Your task to perform on an android device: open app "Airtel Thanks" (install if not already installed) and go to login screen Image 0: 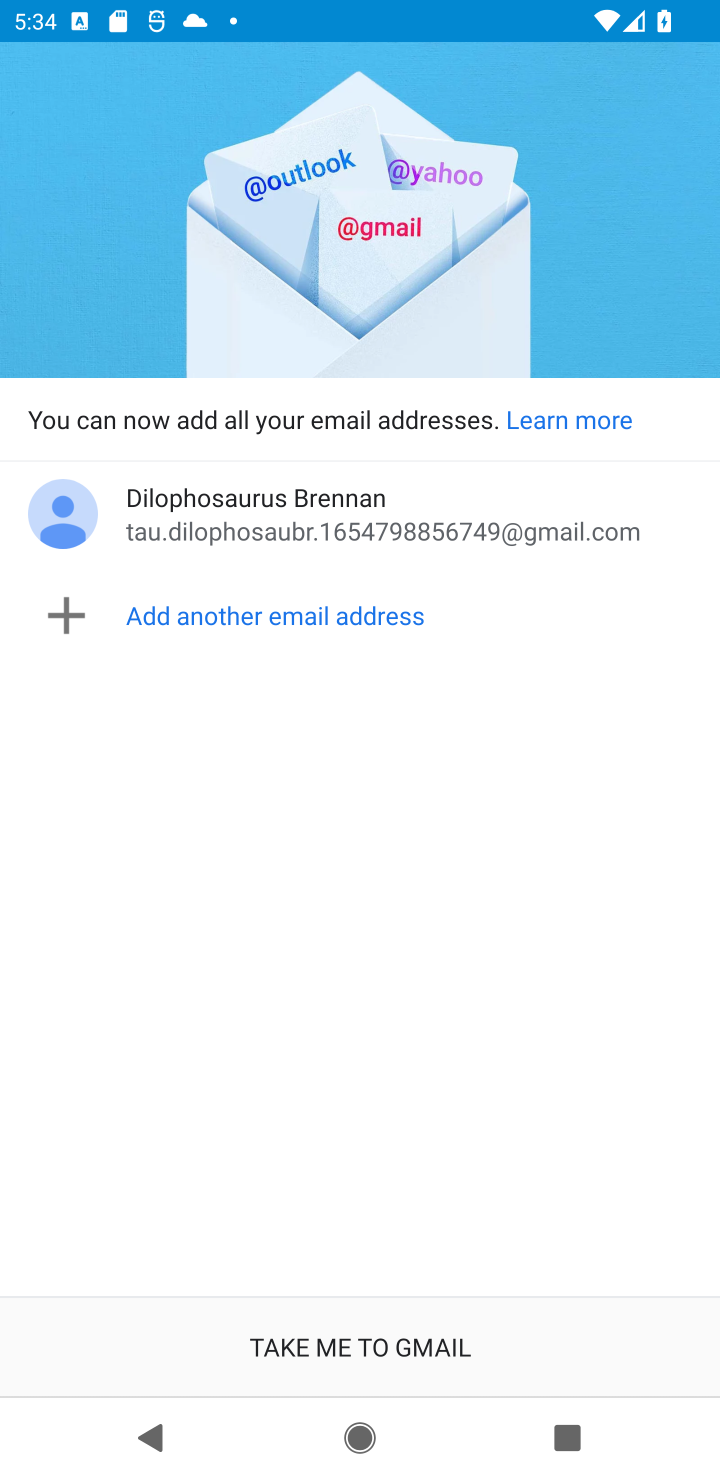
Step 0: press home button
Your task to perform on an android device: open app "Airtel Thanks" (install if not already installed) and go to login screen Image 1: 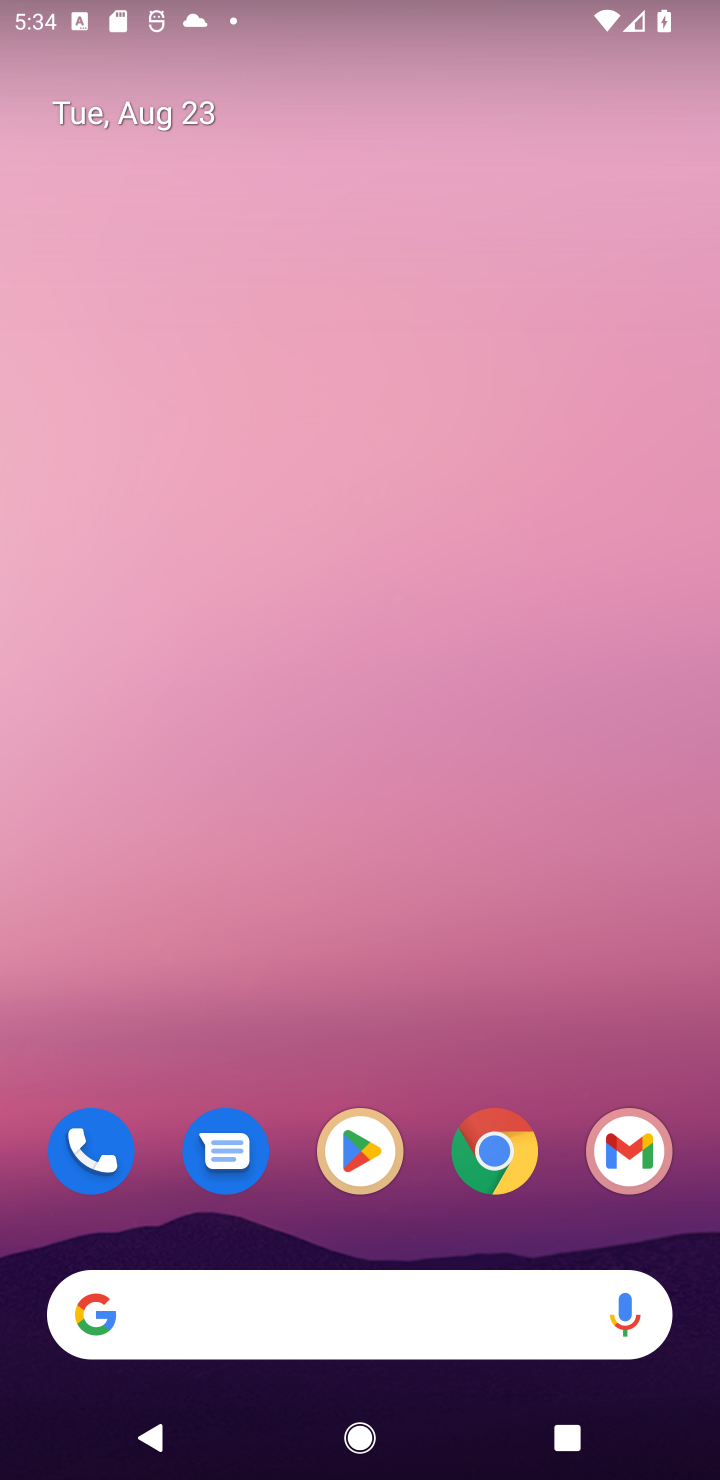
Step 1: click (357, 1155)
Your task to perform on an android device: open app "Airtel Thanks" (install if not already installed) and go to login screen Image 2: 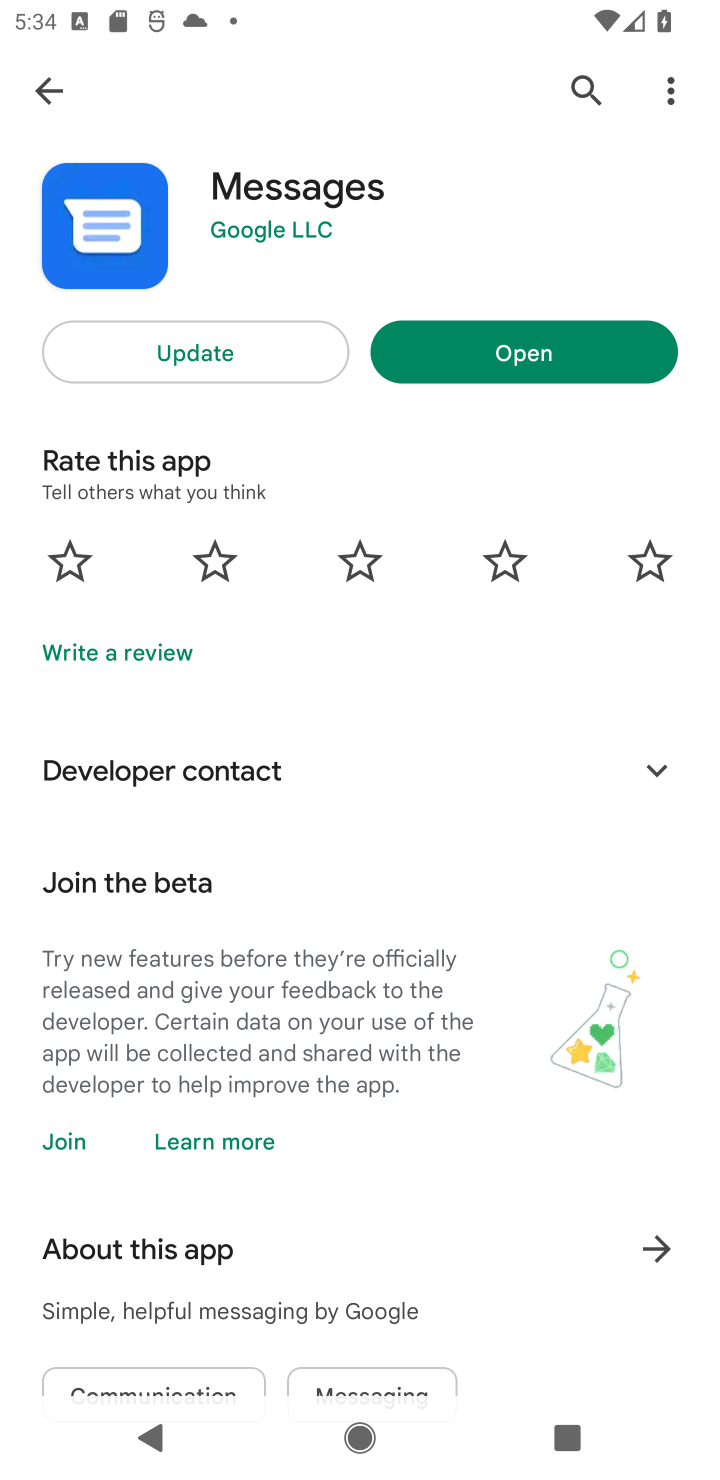
Step 2: click (583, 77)
Your task to perform on an android device: open app "Airtel Thanks" (install if not already installed) and go to login screen Image 3: 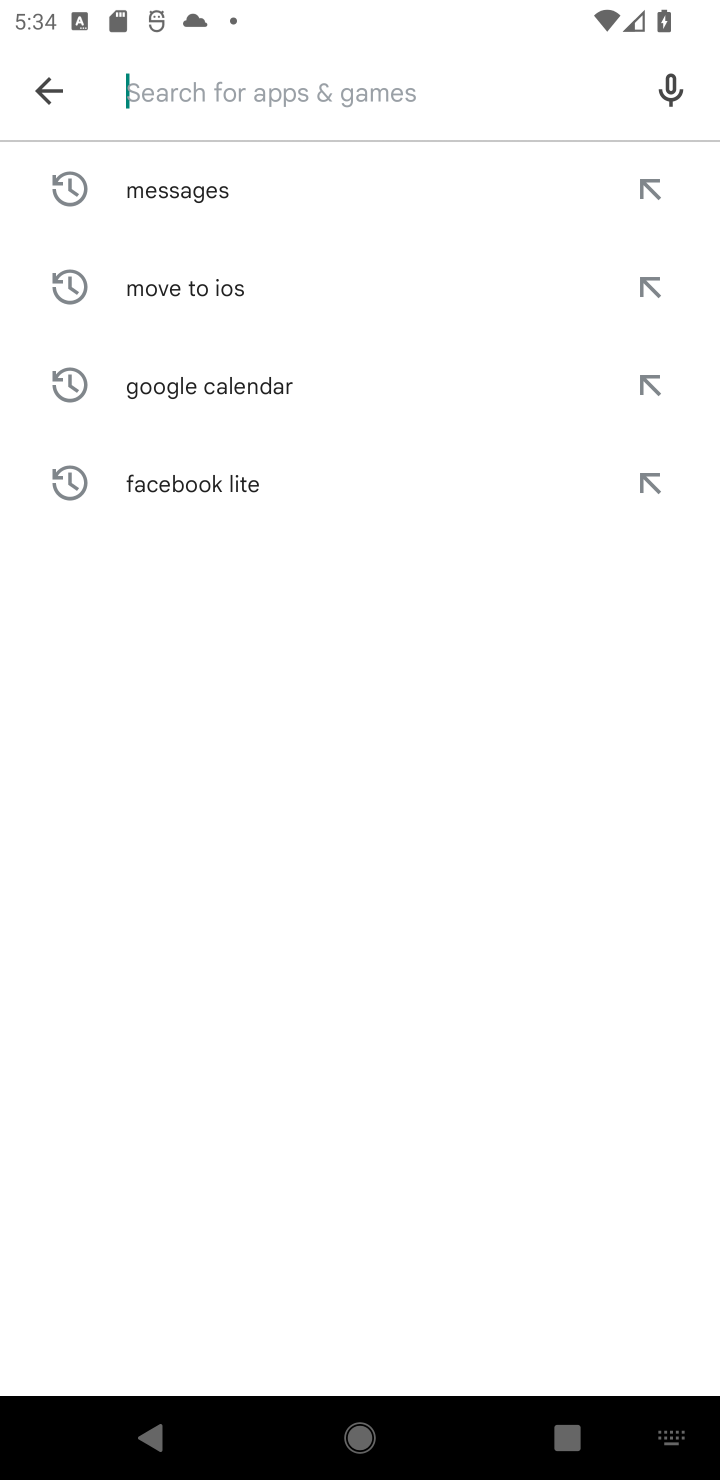
Step 3: type "Airtel Thanks"
Your task to perform on an android device: open app "Airtel Thanks" (install if not already installed) and go to login screen Image 4: 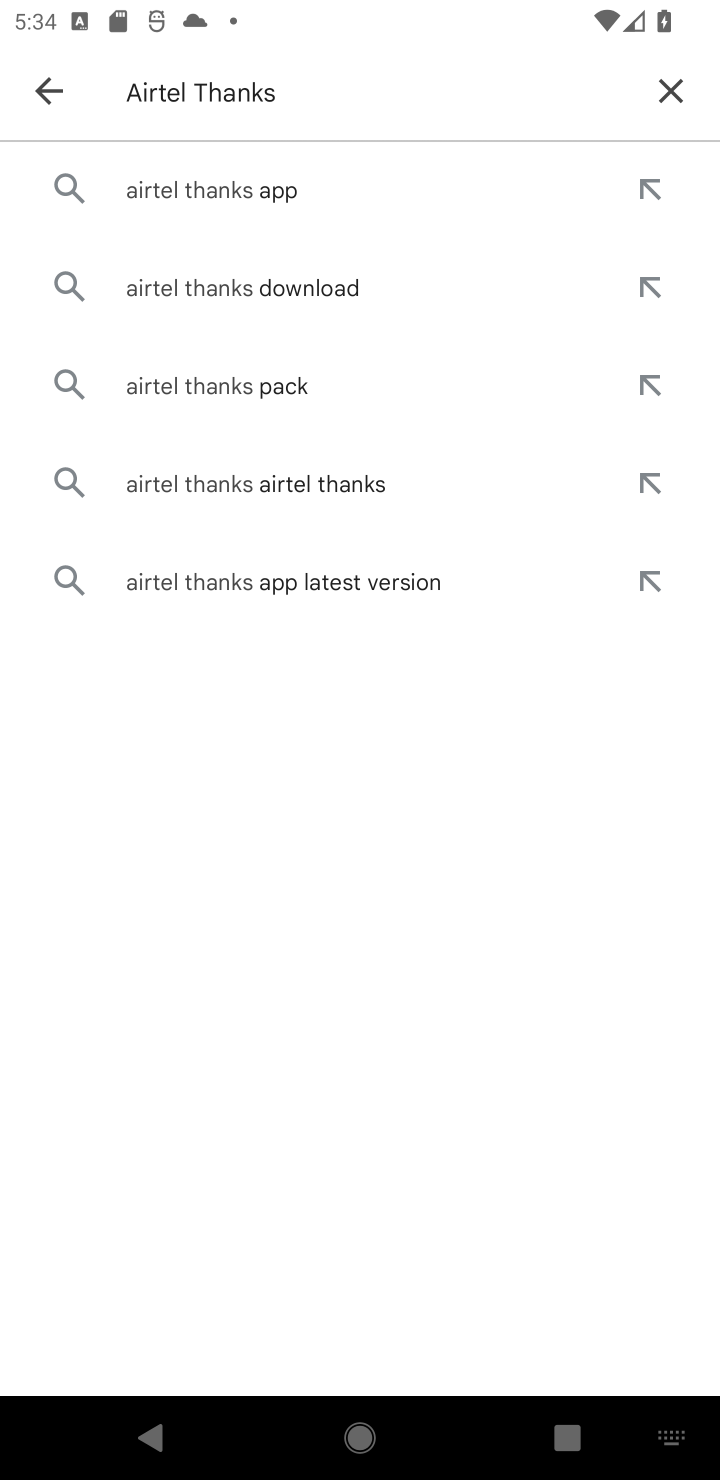
Step 4: click (285, 184)
Your task to perform on an android device: open app "Airtel Thanks" (install if not already installed) and go to login screen Image 5: 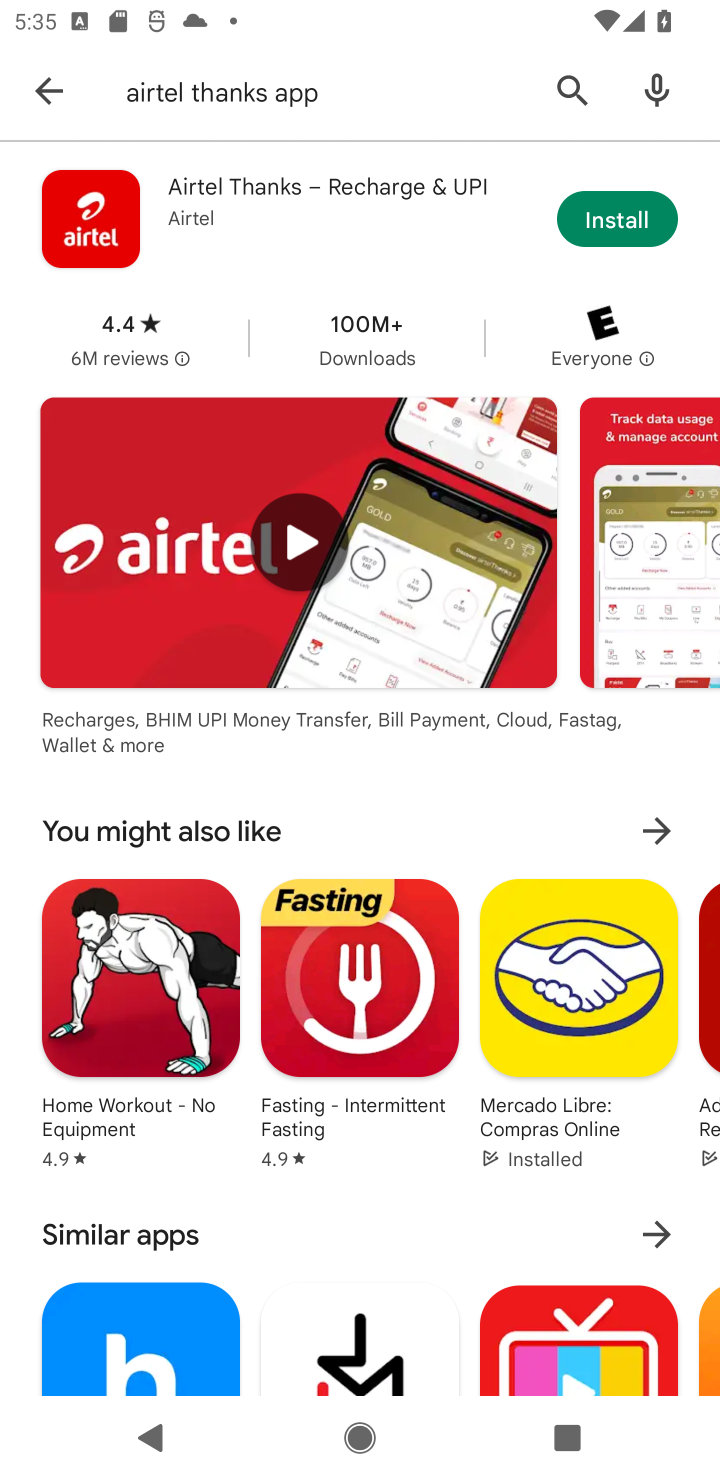
Step 5: click (647, 219)
Your task to perform on an android device: open app "Airtel Thanks" (install if not already installed) and go to login screen Image 6: 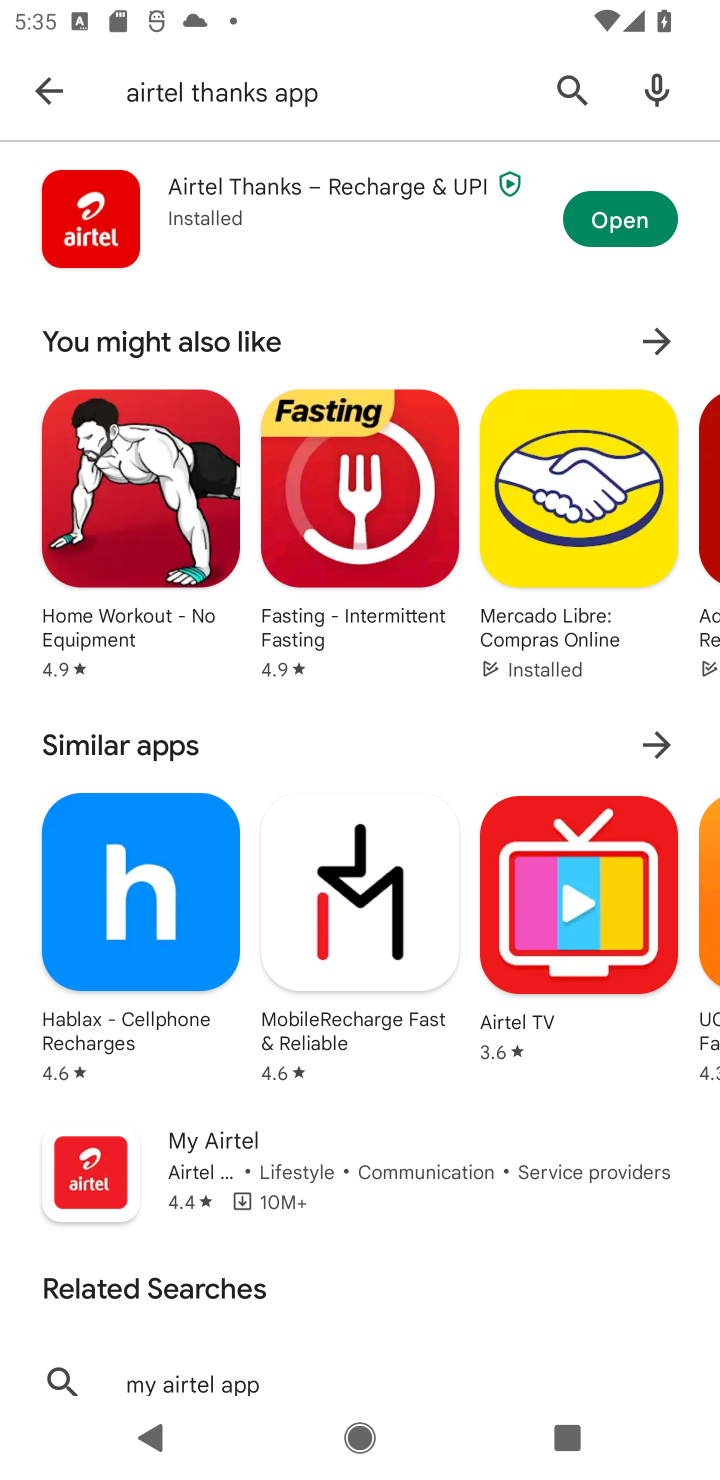
Step 6: click (648, 231)
Your task to perform on an android device: open app "Airtel Thanks" (install if not already installed) and go to login screen Image 7: 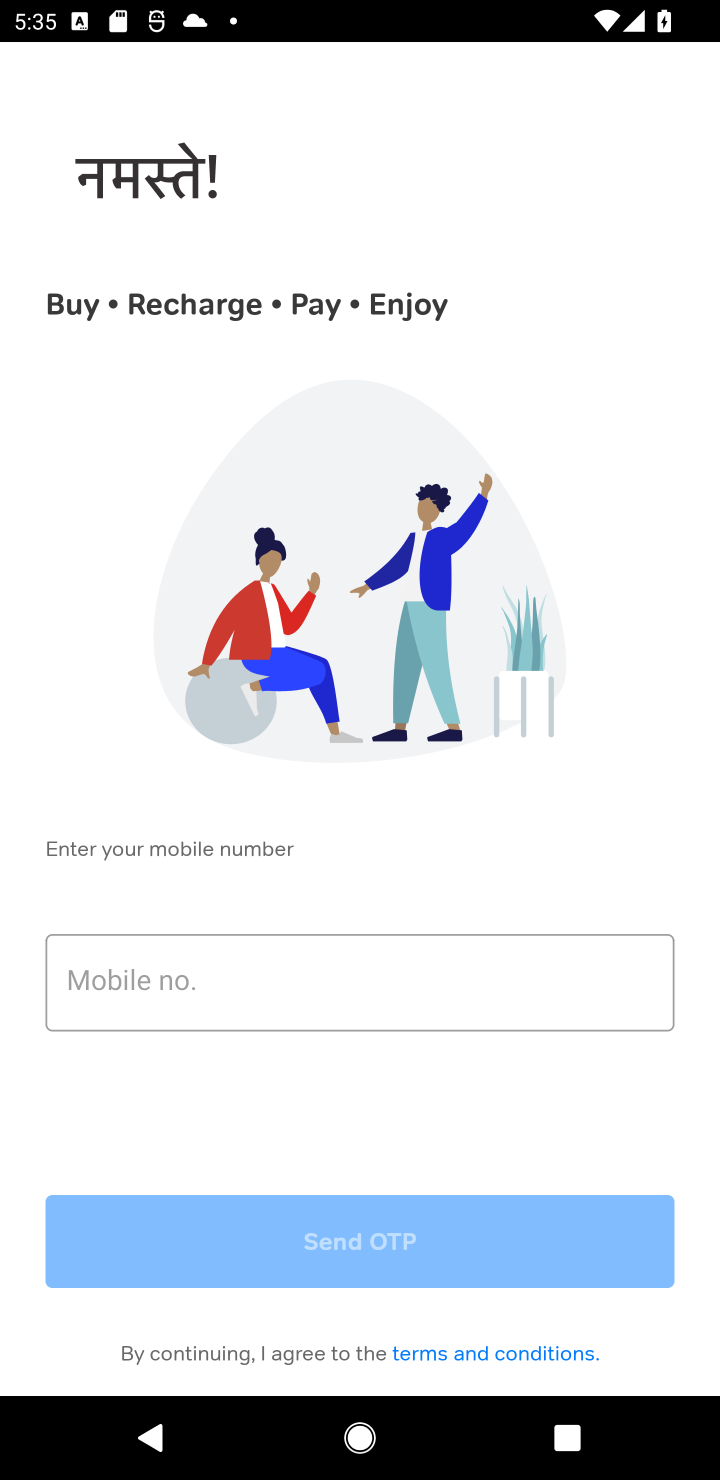
Step 7: task complete